Your task to perform on an android device: set an alarm Image 0: 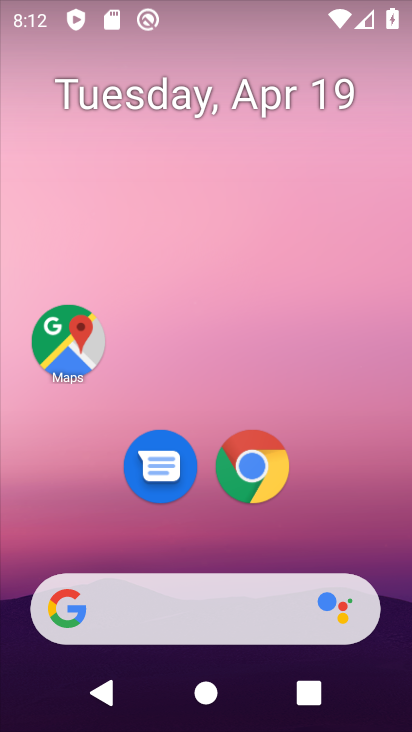
Step 0: drag from (368, 341) to (264, 15)
Your task to perform on an android device: set an alarm Image 1: 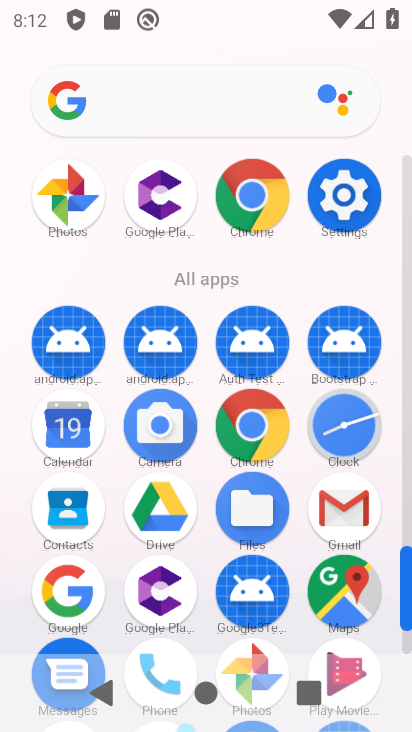
Step 1: click (352, 429)
Your task to perform on an android device: set an alarm Image 2: 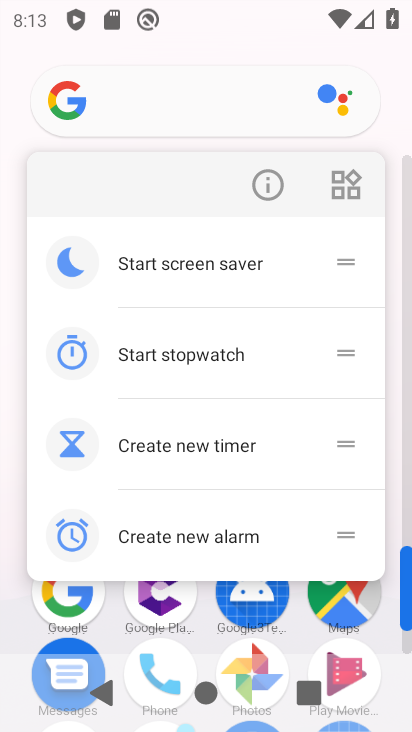
Step 2: press back button
Your task to perform on an android device: set an alarm Image 3: 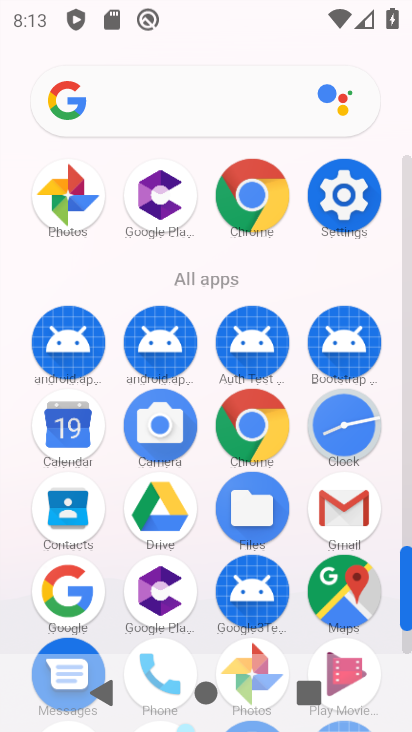
Step 3: click (355, 436)
Your task to perform on an android device: set an alarm Image 4: 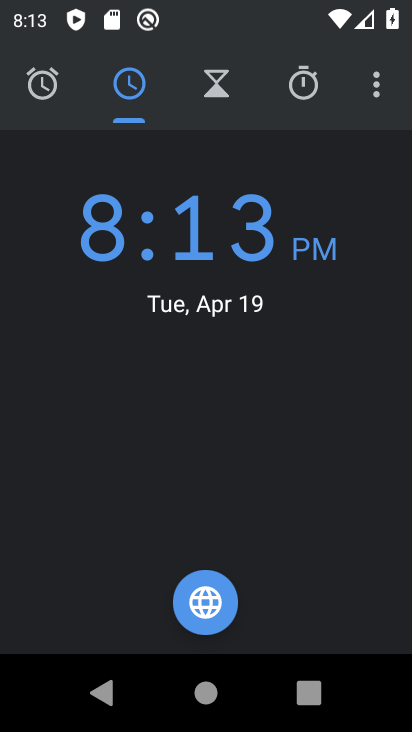
Step 4: click (219, 84)
Your task to perform on an android device: set an alarm Image 5: 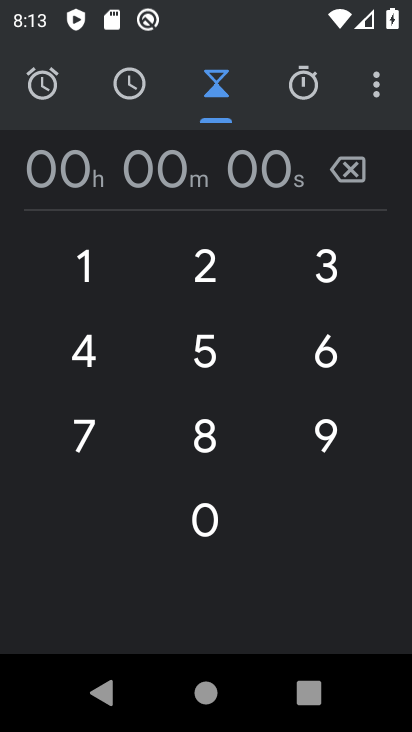
Step 5: click (49, 101)
Your task to perform on an android device: set an alarm Image 6: 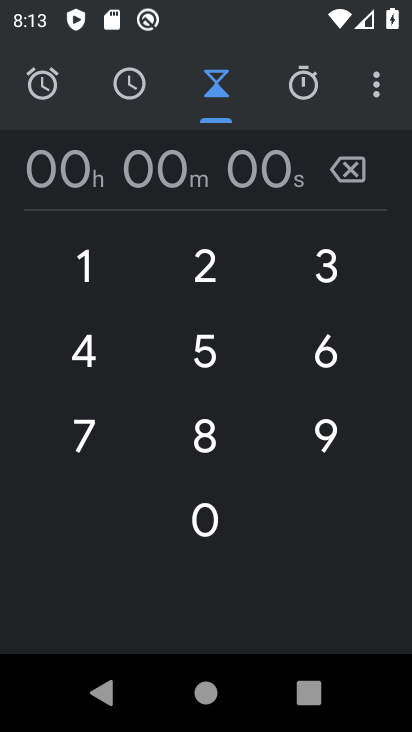
Step 6: click (49, 101)
Your task to perform on an android device: set an alarm Image 7: 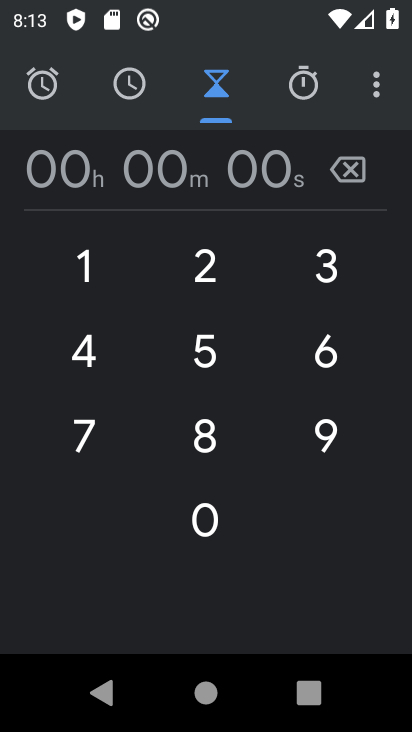
Step 7: click (45, 90)
Your task to perform on an android device: set an alarm Image 8: 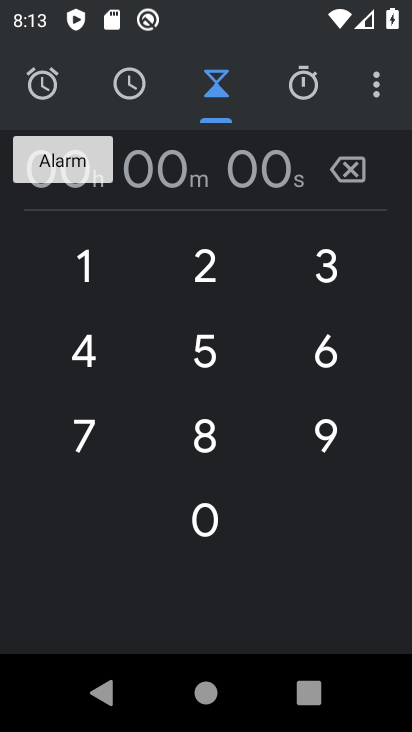
Step 8: click (45, 88)
Your task to perform on an android device: set an alarm Image 9: 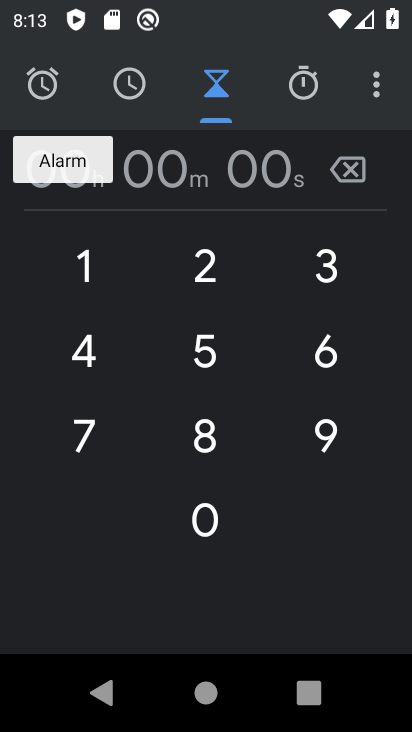
Step 9: click (32, 77)
Your task to perform on an android device: set an alarm Image 10: 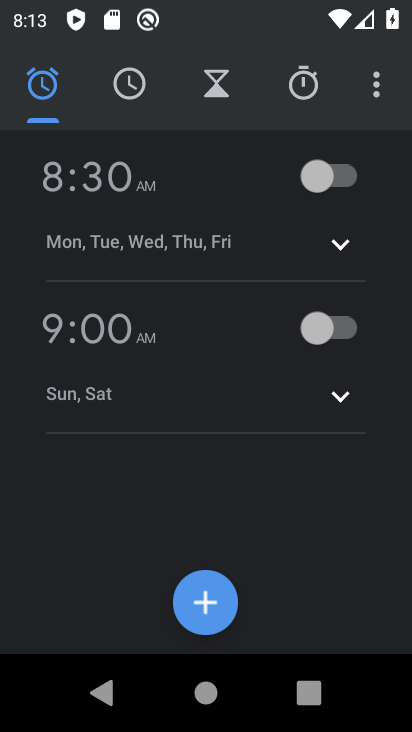
Step 10: click (320, 169)
Your task to perform on an android device: set an alarm Image 11: 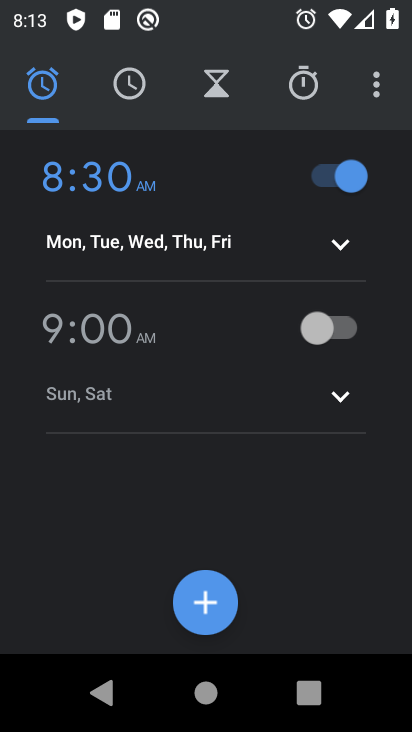
Step 11: task complete